Your task to perform on an android device: When is my next meeting? Image 0: 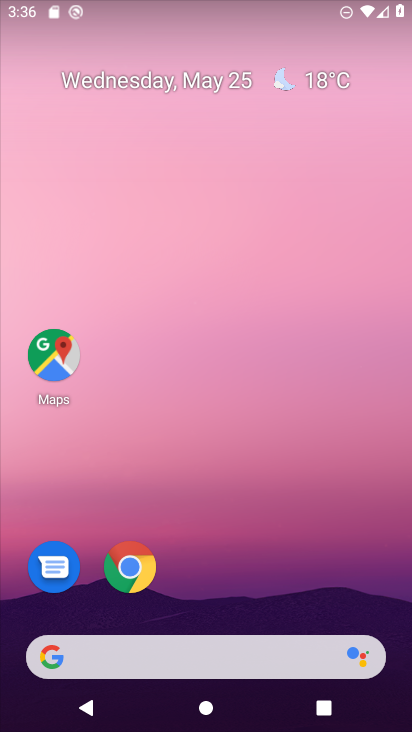
Step 0: drag from (347, 622) to (359, 299)
Your task to perform on an android device: When is my next meeting? Image 1: 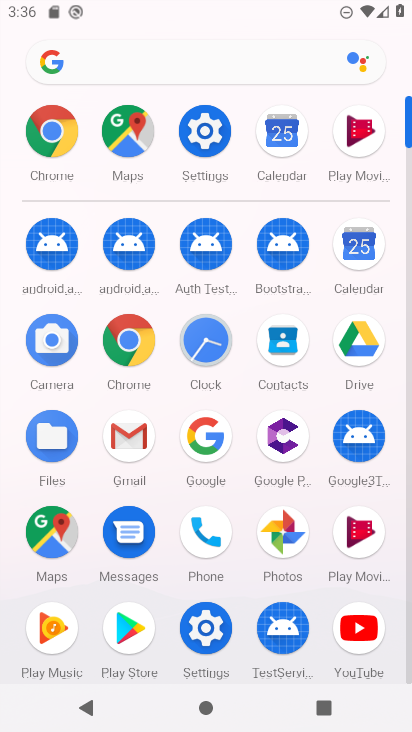
Step 1: click (346, 267)
Your task to perform on an android device: When is my next meeting? Image 2: 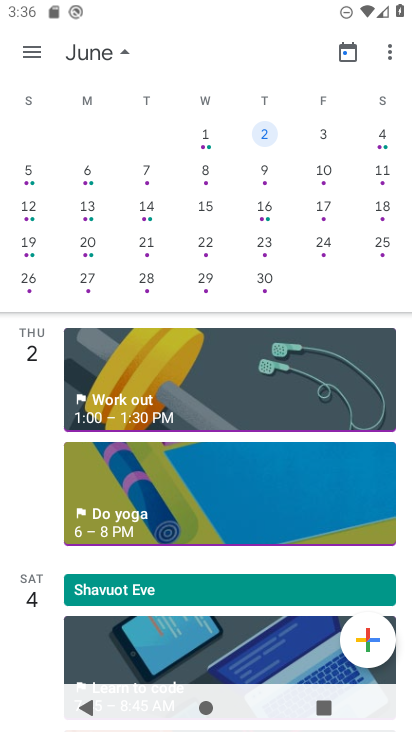
Step 2: drag from (38, 127) to (399, 115)
Your task to perform on an android device: When is my next meeting? Image 3: 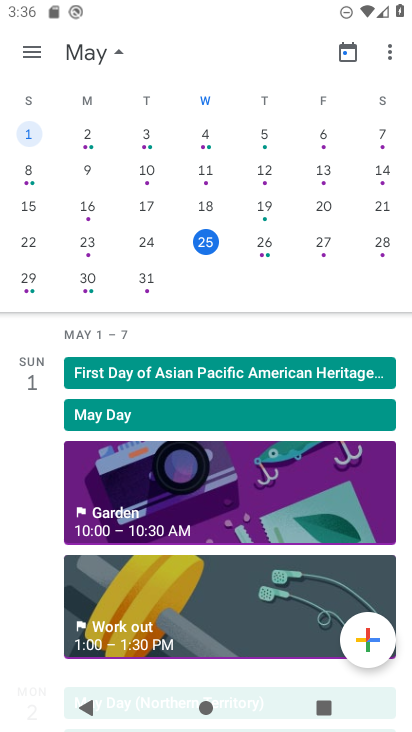
Step 3: click (264, 243)
Your task to perform on an android device: When is my next meeting? Image 4: 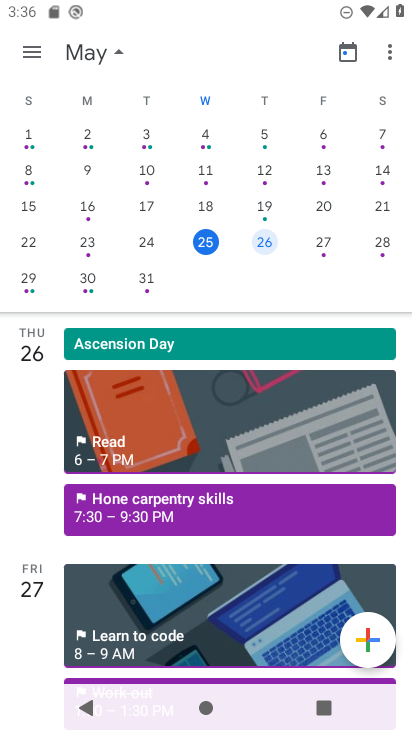
Step 4: click (244, 414)
Your task to perform on an android device: When is my next meeting? Image 5: 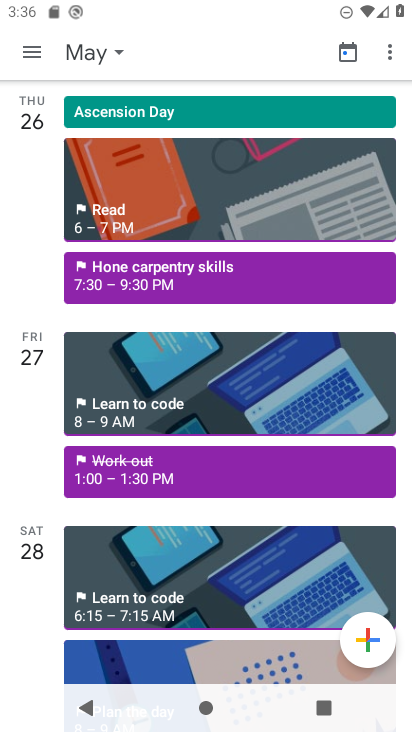
Step 5: click (230, 179)
Your task to perform on an android device: When is my next meeting? Image 6: 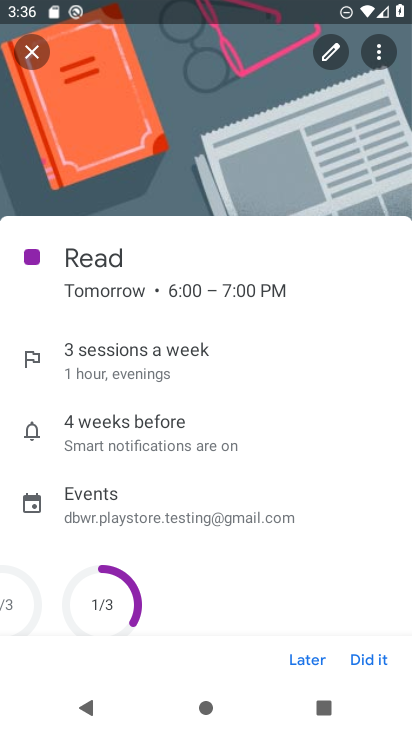
Step 6: task complete